Your task to perform on an android device: Find coffee shops on Maps Image 0: 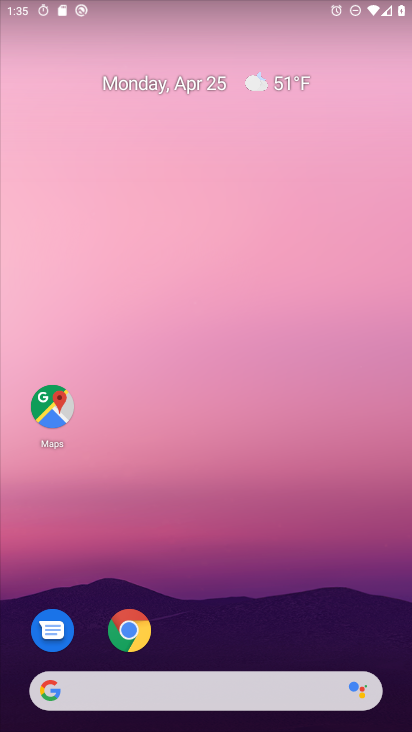
Step 0: click (242, 148)
Your task to perform on an android device: Find coffee shops on Maps Image 1: 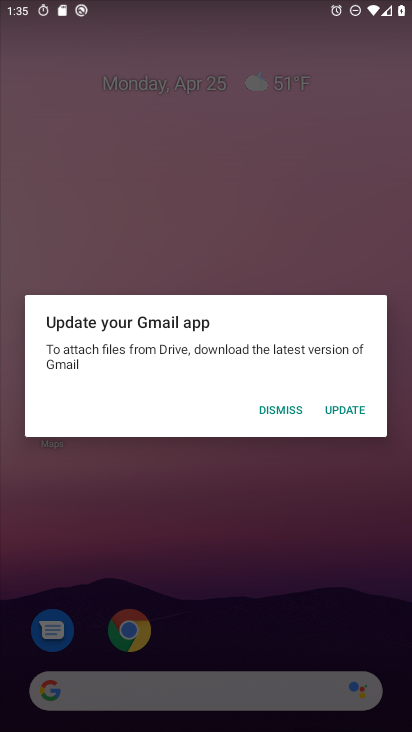
Step 1: press home button
Your task to perform on an android device: Find coffee shops on Maps Image 2: 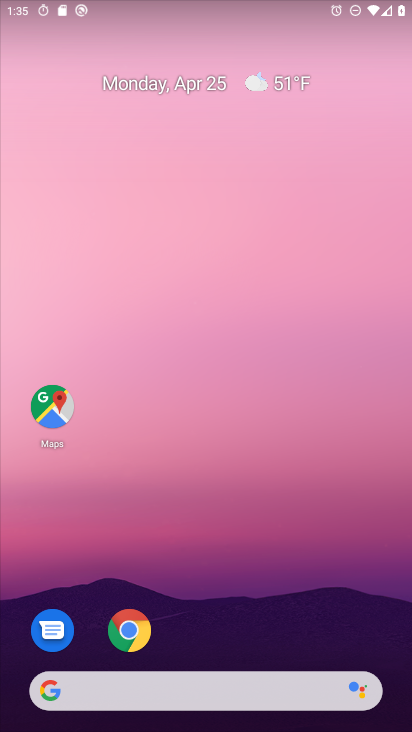
Step 2: drag from (239, 617) to (270, 177)
Your task to perform on an android device: Find coffee shops on Maps Image 3: 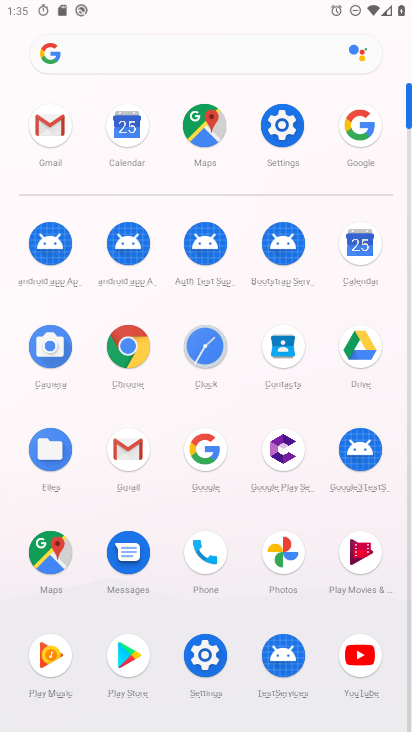
Step 3: click (275, 119)
Your task to perform on an android device: Find coffee shops on Maps Image 4: 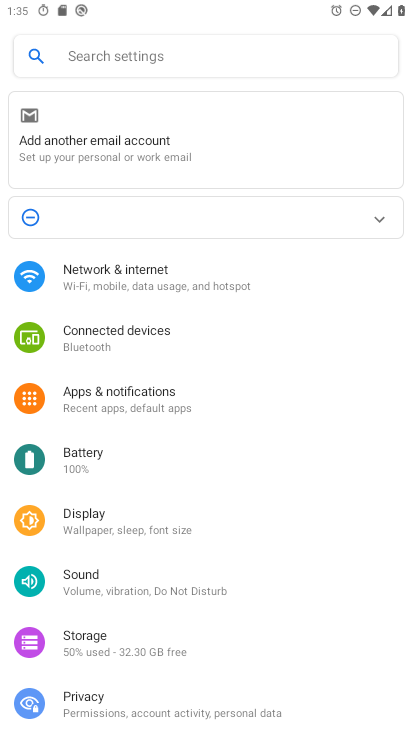
Step 4: press home button
Your task to perform on an android device: Find coffee shops on Maps Image 5: 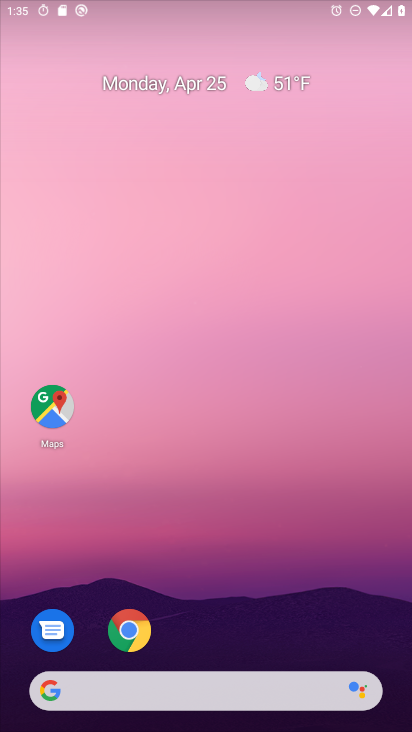
Step 5: drag from (175, 586) to (193, 107)
Your task to perform on an android device: Find coffee shops on Maps Image 6: 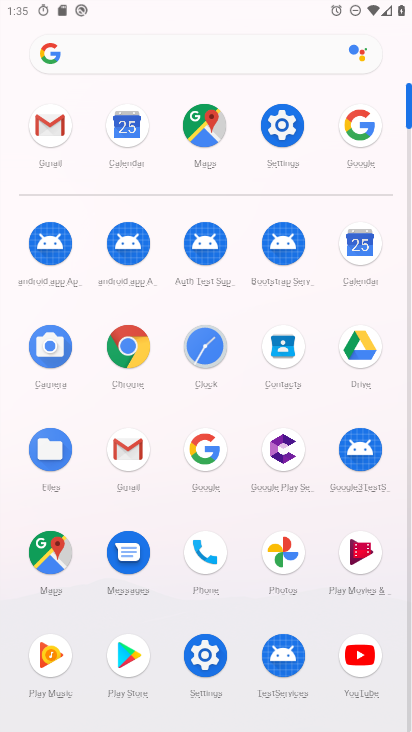
Step 6: click (203, 132)
Your task to perform on an android device: Find coffee shops on Maps Image 7: 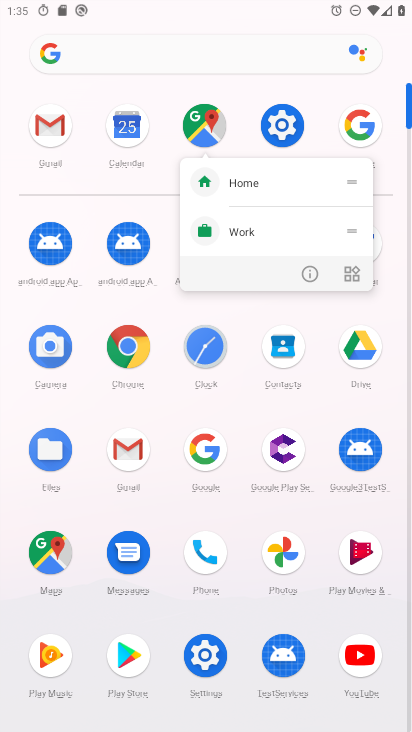
Step 7: click (314, 273)
Your task to perform on an android device: Find coffee shops on Maps Image 8: 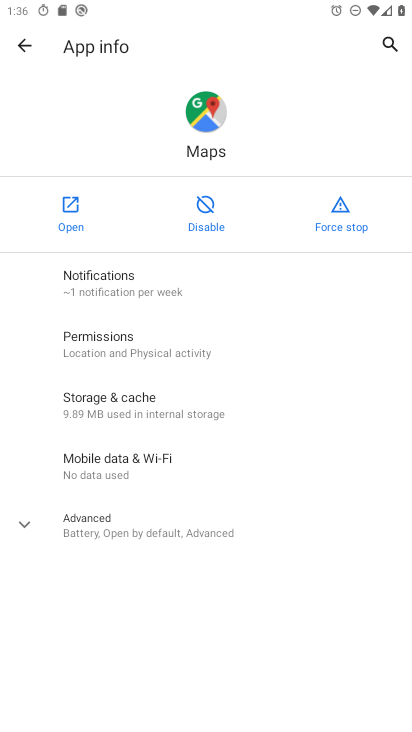
Step 8: click (60, 212)
Your task to perform on an android device: Find coffee shops on Maps Image 9: 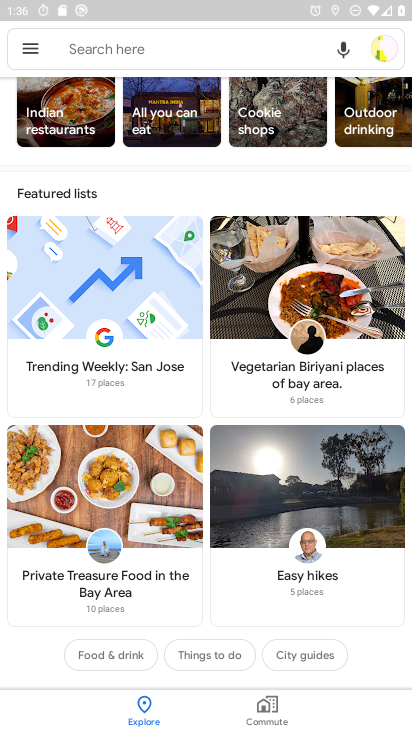
Step 9: drag from (189, 556) to (232, 135)
Your task to perform on an android device: Find coffee shops on Maps Image 10: 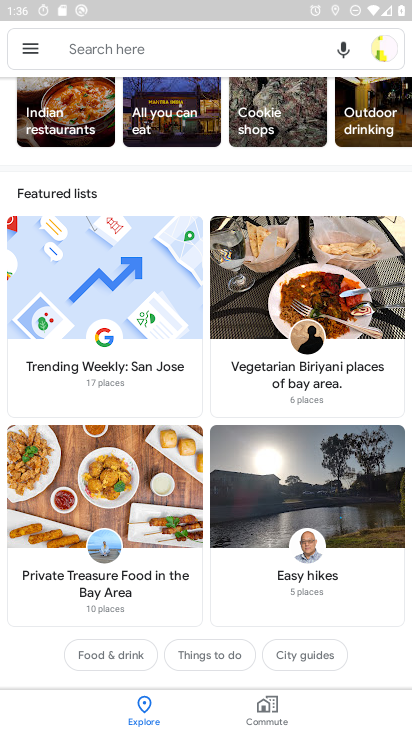
Step 10: click (158, 53)
Your task to perform on an android device: Find coffee shops on Maps Image 11: 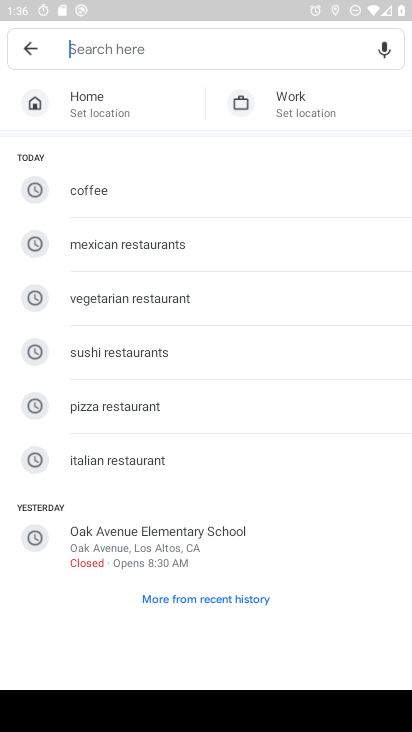
Step 11: click (103, 189)
Your task to perform on an android device: Find coffee shops on Maps Image 12: 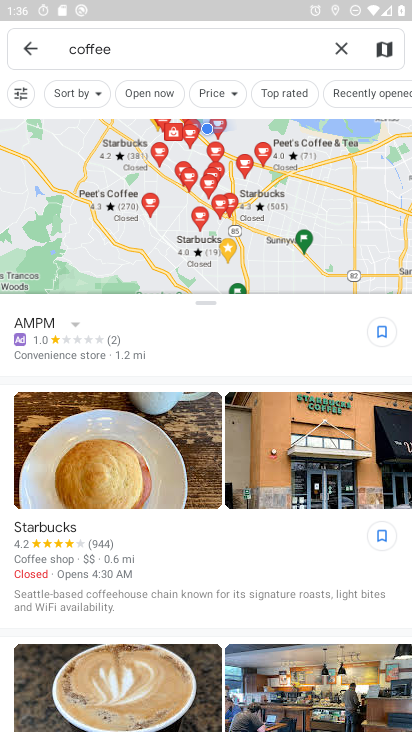
Step 12: task complete